Your task to perform on an android device: turn pop-ups on in chrome Image 0: 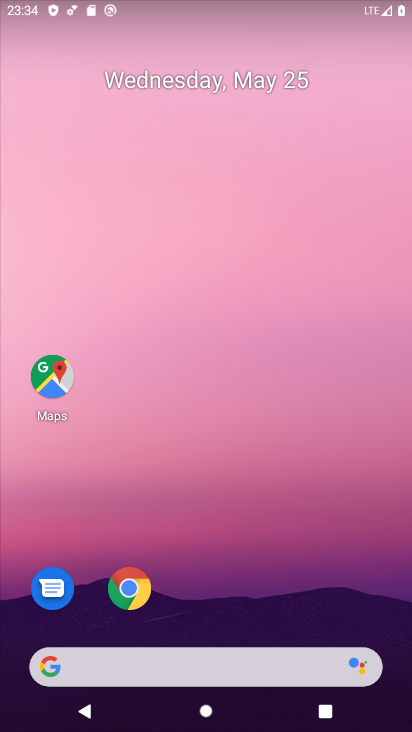
Step 0: click (131, 589)
Your task to perform on an android device: turn pop-ups on in chrome Image 1: 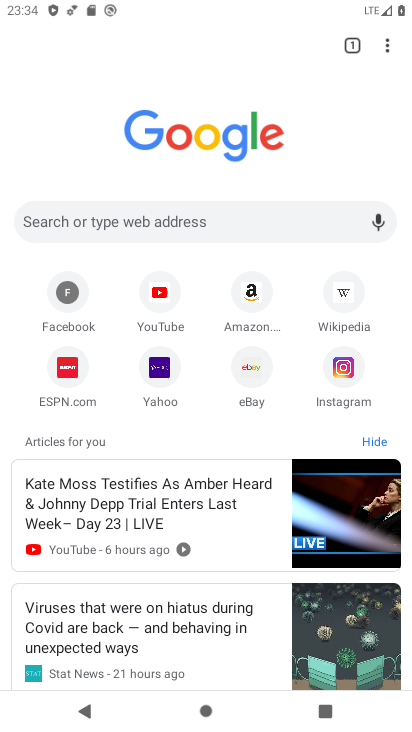
Step 1: click (391, 41)
Your task to perform on an android device: turn pop-ups on in chrome Image 2: 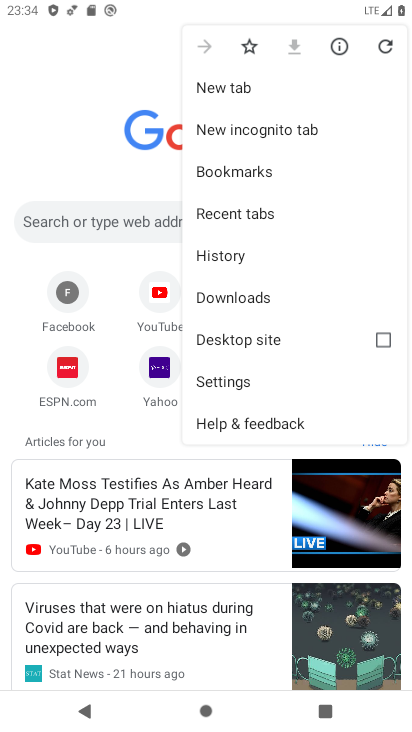
Step 2: click (238, 382)
Your task to perform on an android device: turn pop-ups on in chrome Image 3: 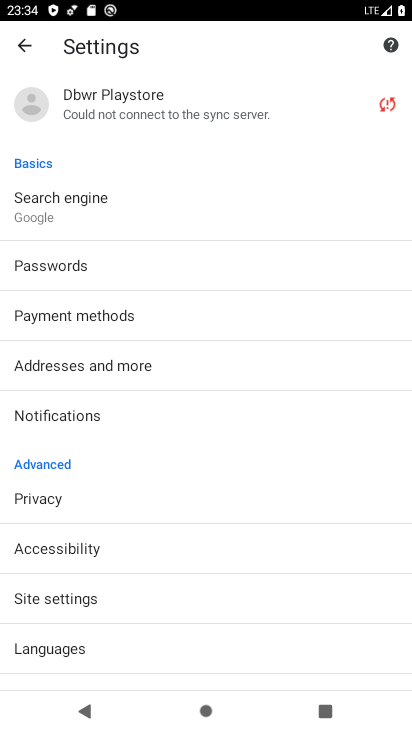
Step 3: drag from (183, 563) to (119, 290)
Your task to perform on an android device: turn pop-ups on in chrome Image 4: 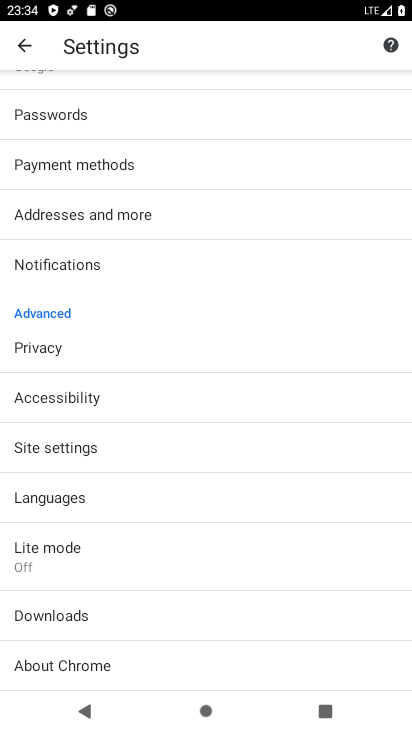
Step 4: click (69, 460)
Your task to perform on an android device: turn pop-ups on in chrome Image 5: 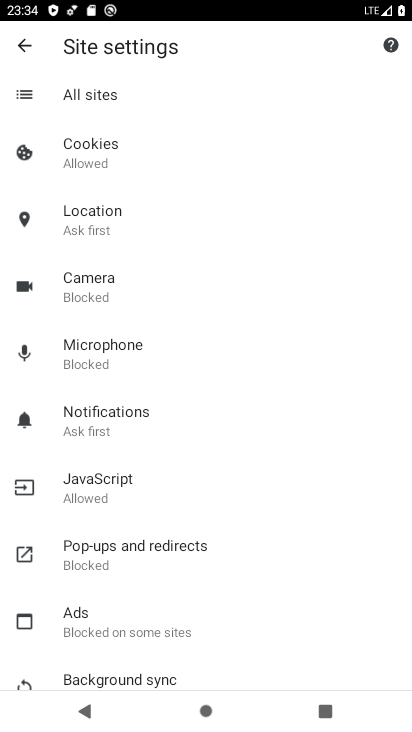
Step 5: click (125, 545)
Your task to perform on an android device: turn pop-ups on in chrome Image 6: 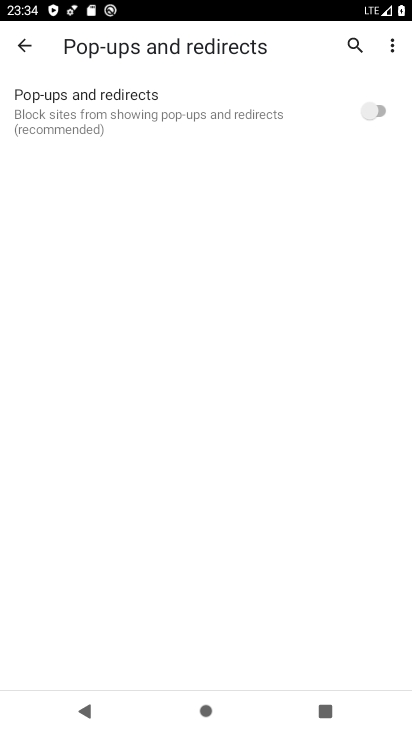
Step 6: click (371, 105)
Your task to perform on an android device: turn pop-ups on in chrome Image 7: 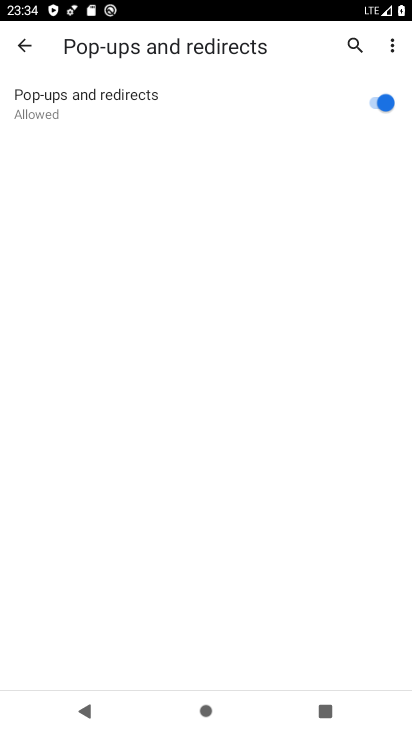
Step 7: task complete